Your task to perform on an android device: turn vacation reply on in the gmail app Image 0: 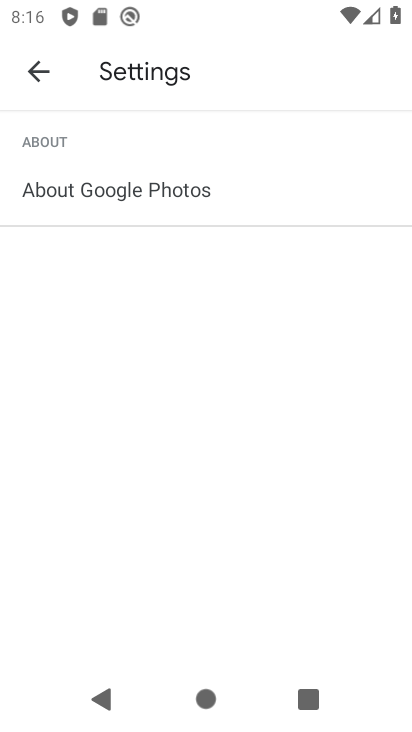
Step 0: press home button
Your task to perform on an android device: turn vacation reply on in the gmail app Image 1: 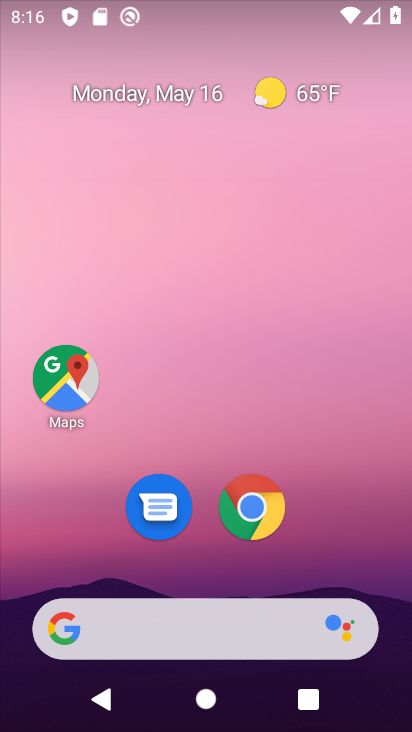
Step 1: drag from (199, 574) to (293, 2)
Your task to perform on an android device: turn vacation reply on in the gmail app Image 2: 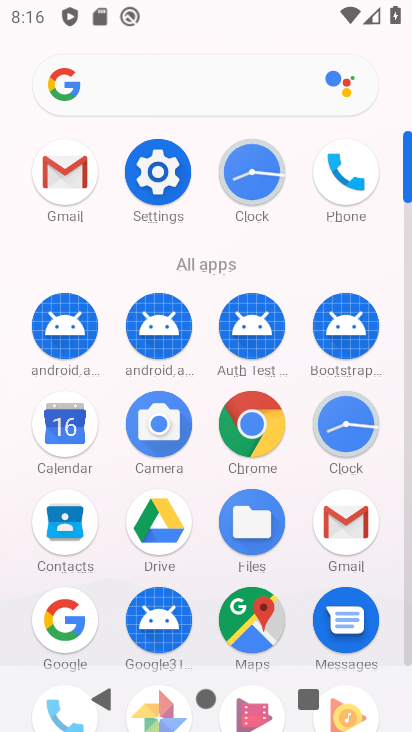
Step 2: click (318, 531)
Your task to perform on an android device: turn vacation reply on in the gmail app Image 3: 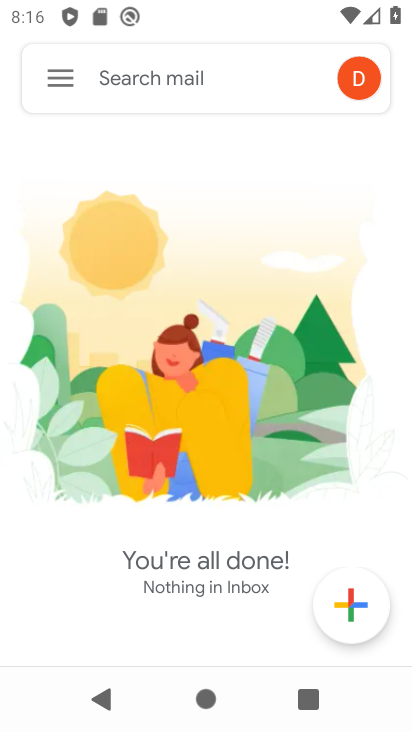
Step 3: click (56, 78)
Your task to perform on an android device: turn vacation reply on in the gmail app Image 4: 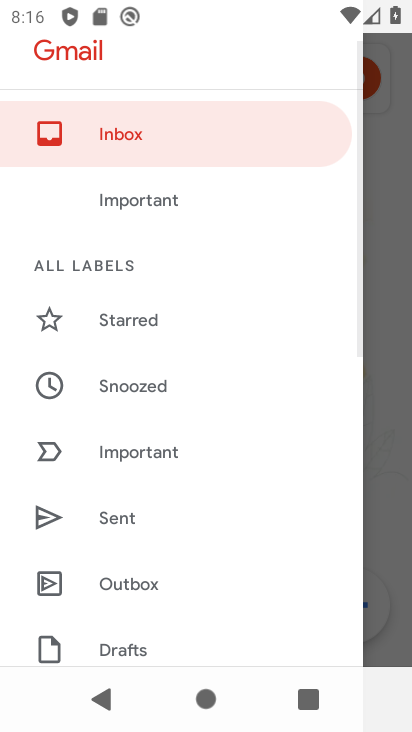
Step 4: drag from (128, 464) to (145, 2)
Your task to perform on an android device: turn vacation reply on in the gmail app Image 5: 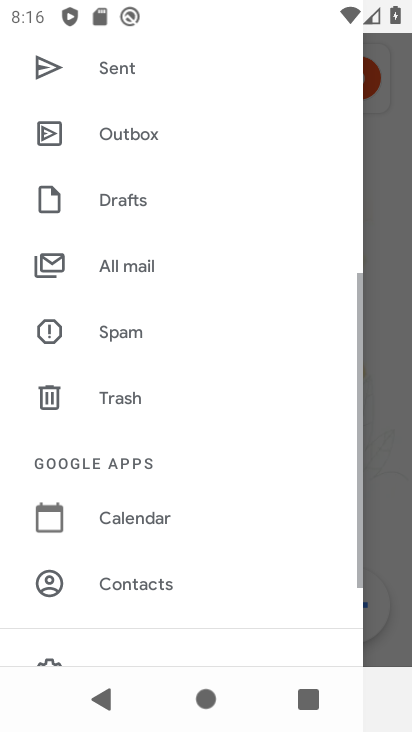
Step 5: drag from (179, 512) to (161, 47)
Your task to perform on an android device: turn vacation reply on in the gmail app Image 6: 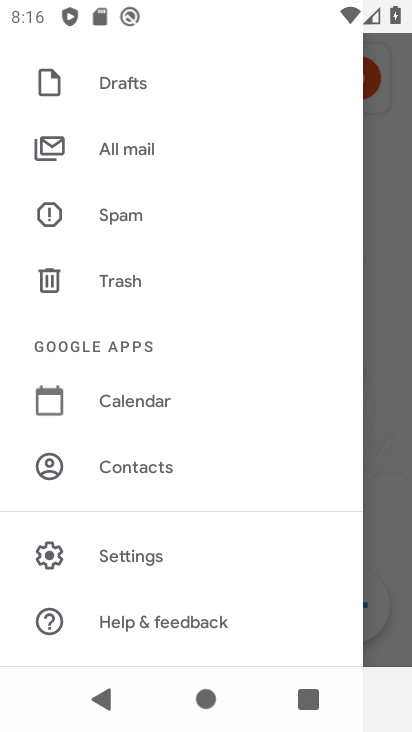
Step 6: click (128, 554)
Your task to perform on an android device: turn vacation reply on in the gmail app Image 7: 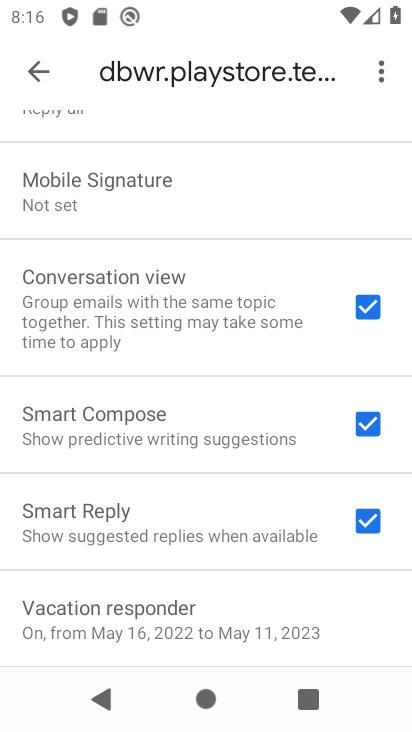
Step 7: drag from (148, 444) to (131, 123)
Your task to perform on an android device: turn vacation reply on in the gmail app Image 8: 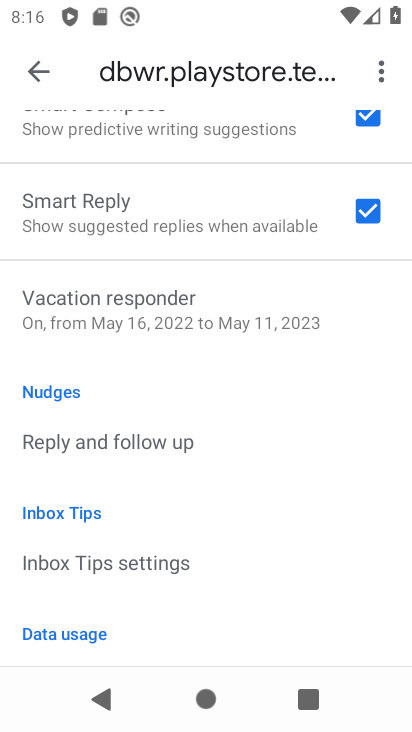
Step 8: click (160, 320)
Your task to perform on an android device: turn vacation reply on in the gmail app Image 9: 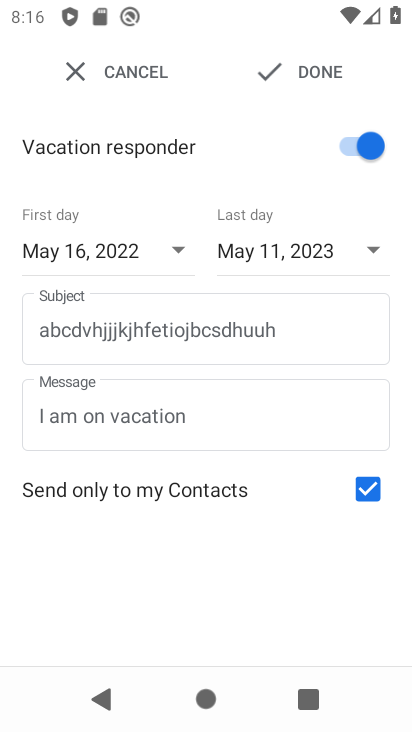
Step 9: click (295, 64)
Your task to perform on an android device: turn vacation reply on in the gmail app Image 10: 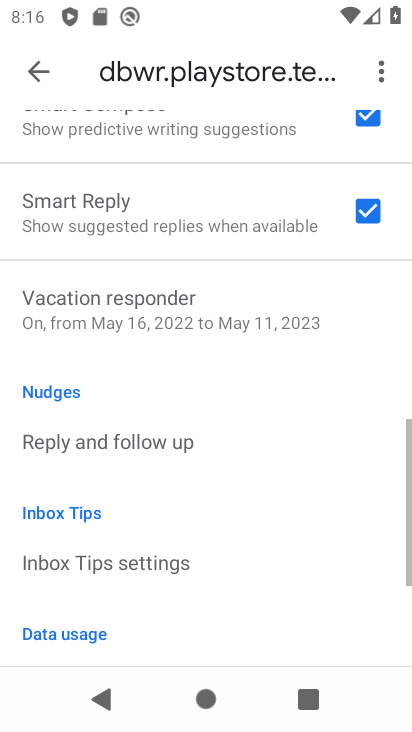
Step 10: task complete